Your task to perform on an android device: Open Android settings Image 0: 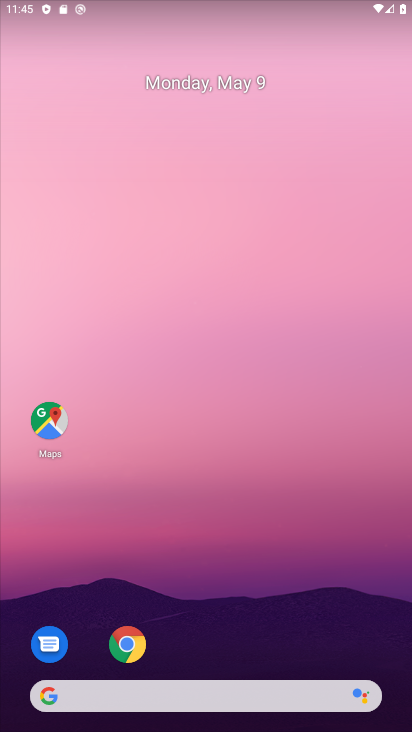
Step 0: drag from (192, 668) to (280, 144)
Your task to perform on an android device: Open Android settings Image 1: 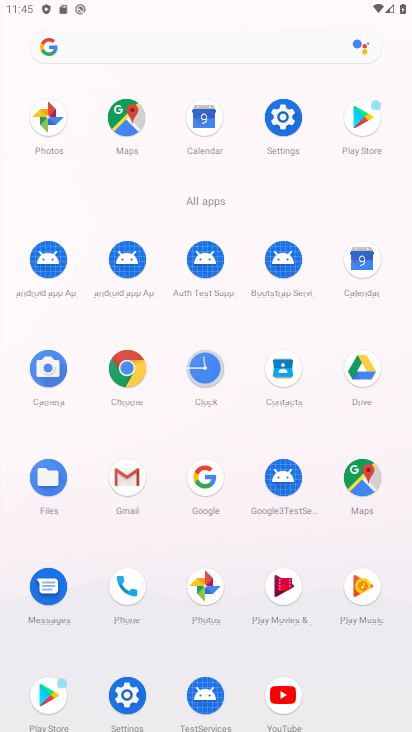
Step 1: click (287, 119)
Your task to perform on an android device: Open Android settings Image 2: 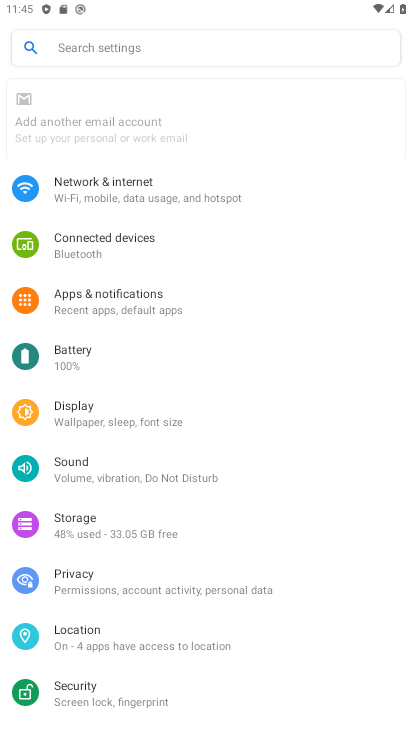
Step 2: drag from (171, 637) to (300, 32)
Your task to perform on an android device: Open Android settings Image 3: 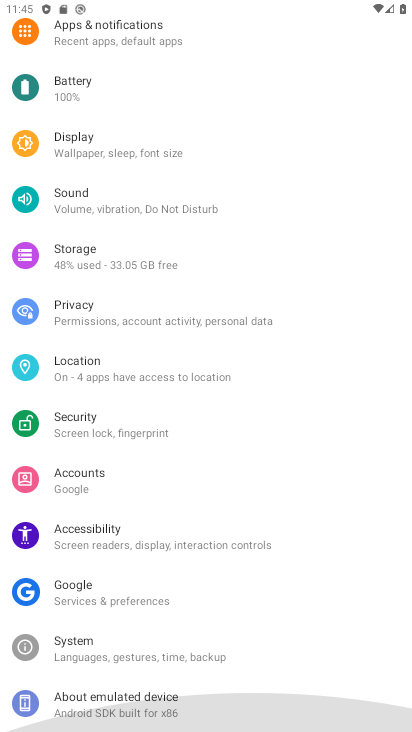
Step 3: drag from (169, 641) to (288, 71)
Your task to perform on an android device: Open Android settings Image 4: 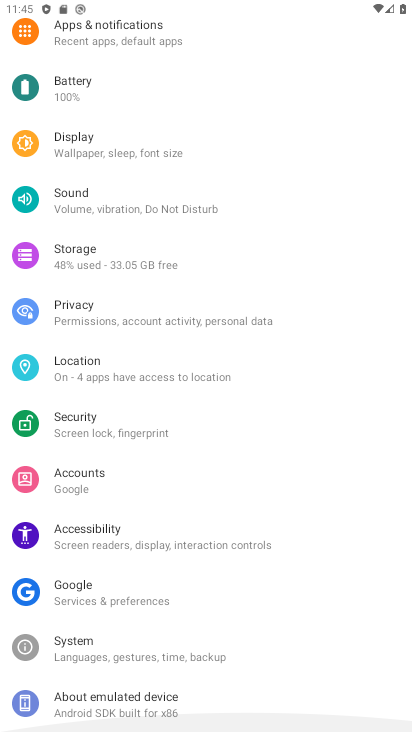
Step 4: click (133, 708)
Your task to perform on an android device: Open Android settings Image 5: 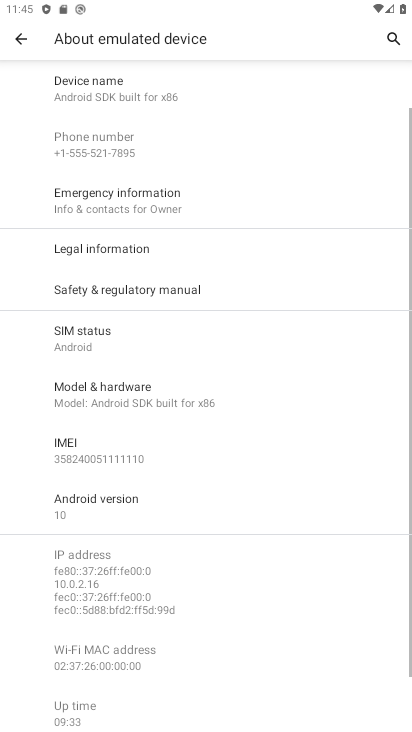
Step 5: click (133, 503)
Your task to perform on an android device: Open Android settings Image 6: 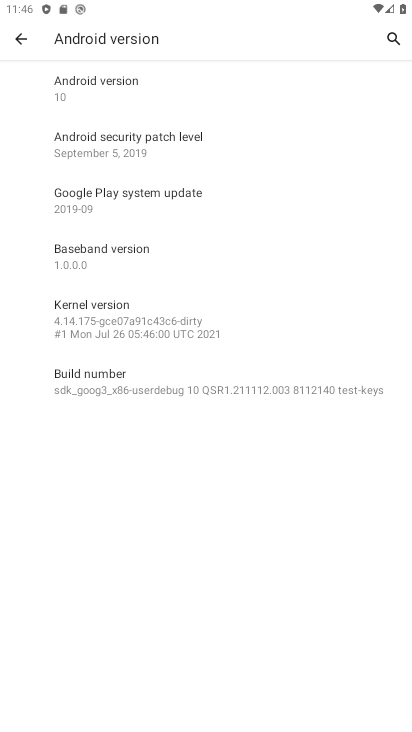
Step 6: click (92, 85)
Your task to perform on an android device: Open Android settings Image 7: 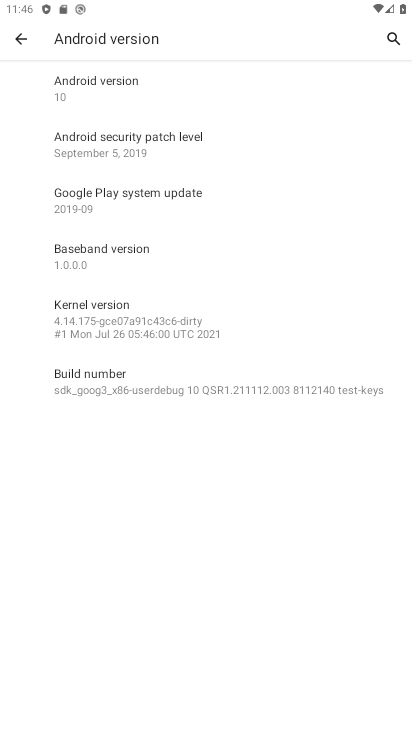
Step 7: click (121, 83)
Your task to perform on an android device: Open Android settings Image 8: 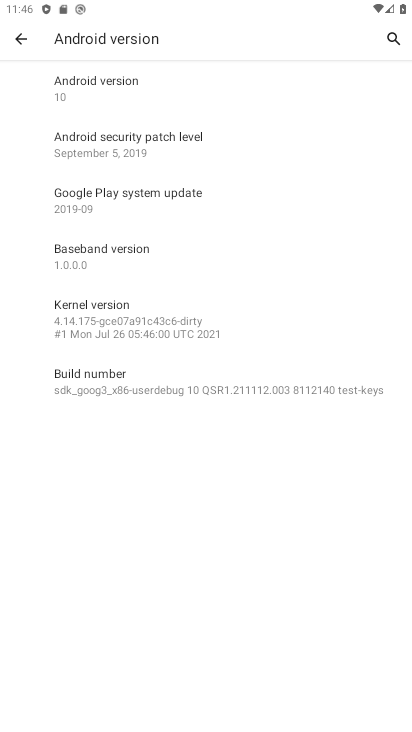
Step 8: click (83, 85)
Your task to perform on an android device: Open Android settings Image 9: 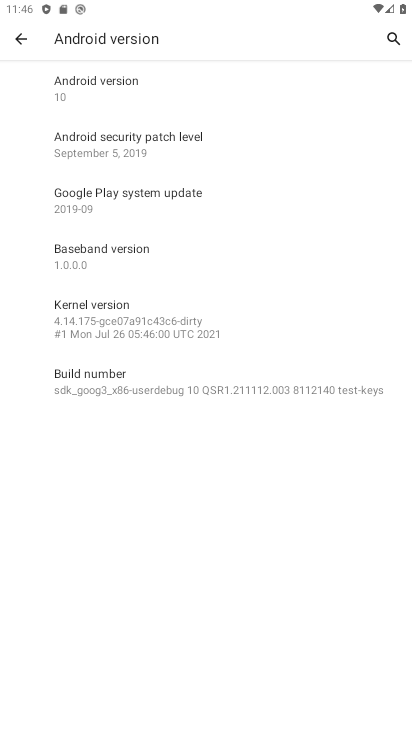
Step 9: task complete